Your task to perform on an android device: Do I have any events tomorrow? Image 0: 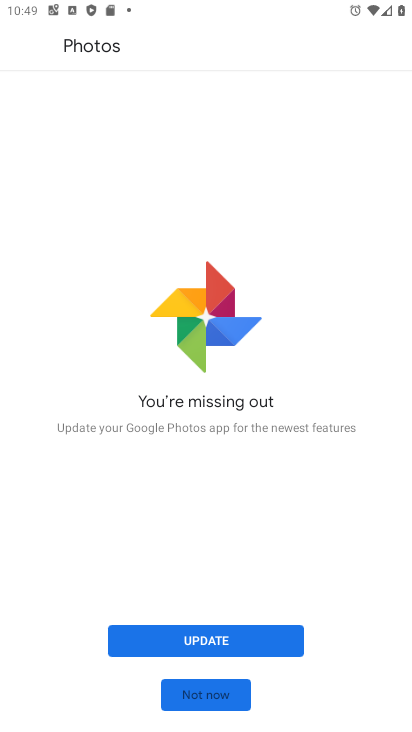
Step 0: press home button
Your task to perform on an android device: Do I have any events tomorrow? Image 1: 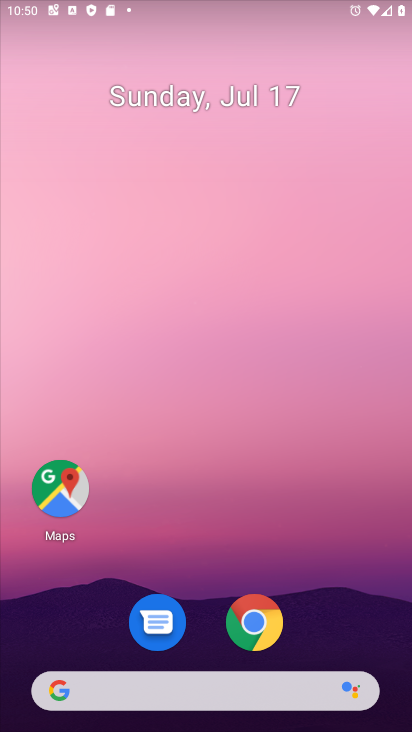
Step 1: drag from (281, 721) to (238, 12)
Your task to perform on an android device: Do I have any events tomorrow? Image 2: 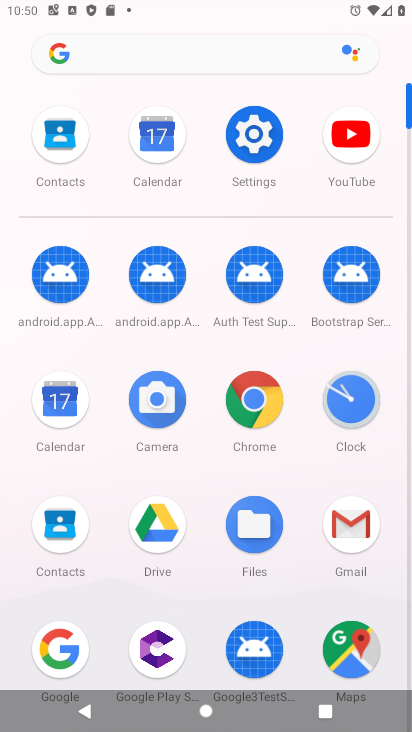
Step 2: click (62, 409)
Your task to perform on an android device: Do I have any events tomorrow? Image 3: 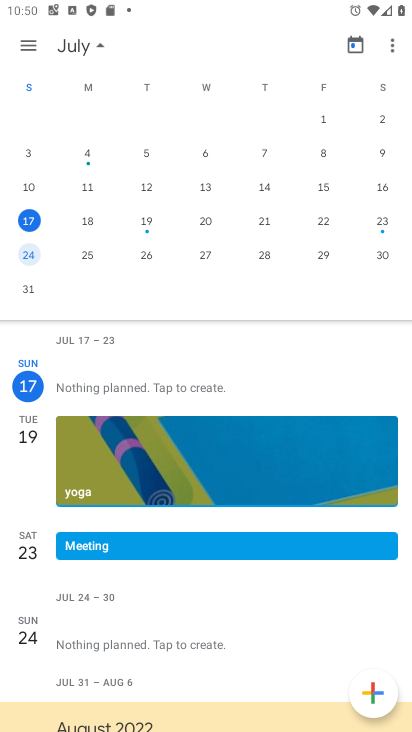
Step 3: click (86, 221)
Your task to perform on an android device: Do I have any events tomorrow? Image 4: 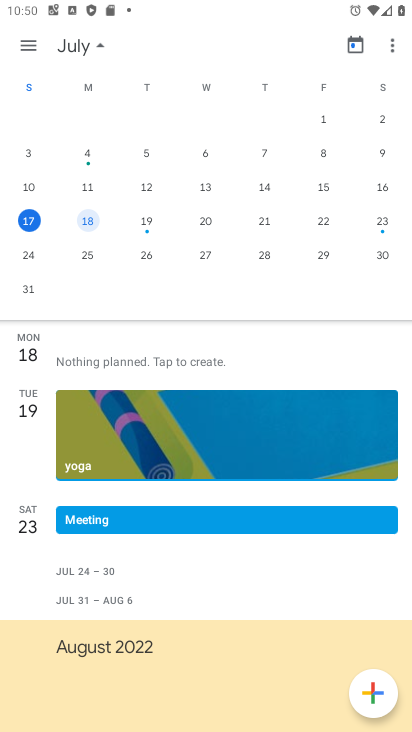
Step 4: task complete